Your task to perform on an android device: change the clock style Image 0: 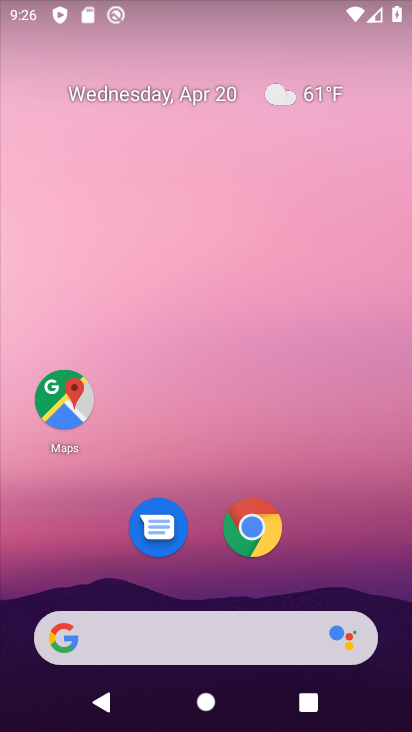
Step 0: drag from (303, 571) to (310, 101)
Your task to perform on an android device: change the clock style Image 1: 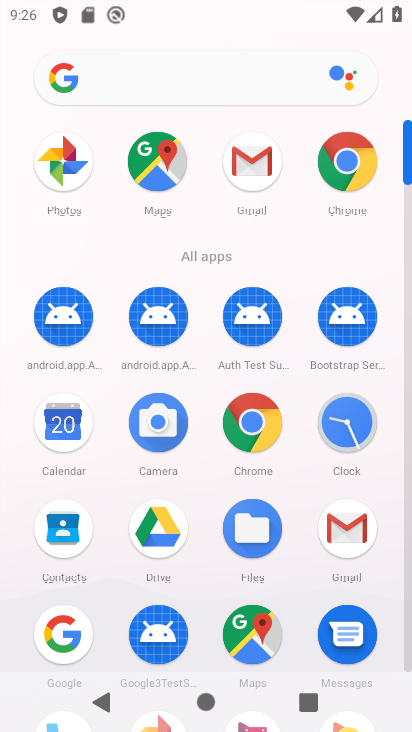
Step 1: click (344, 425)
Your task to perform on an android device: change the clock style Image 2: 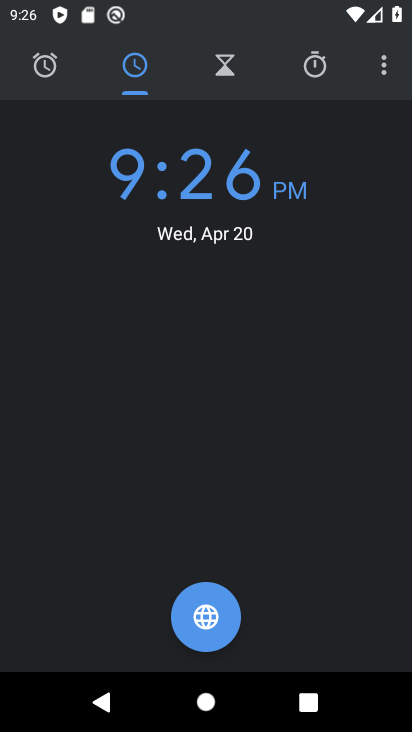
Step 2: click (380, 68)
Your task to perform on an android device: change the clock style Image 3: 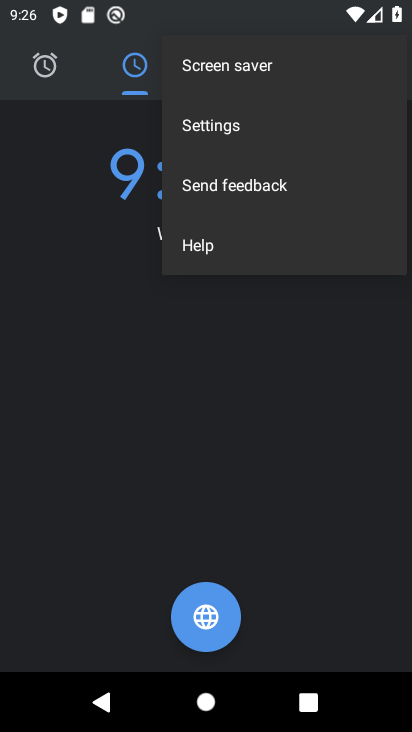
Step 3: click (219, 121)
Your task to perform on an android device: change the clock style Image 4: 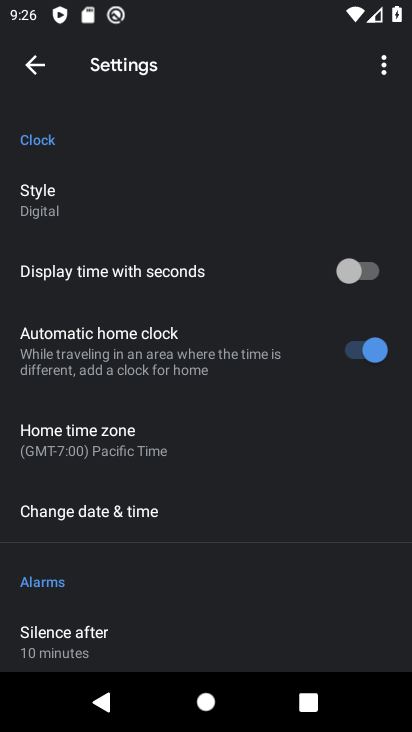
Step 4: click (40, 202)
Your task to perform on an android device: change the clock style Image 5: 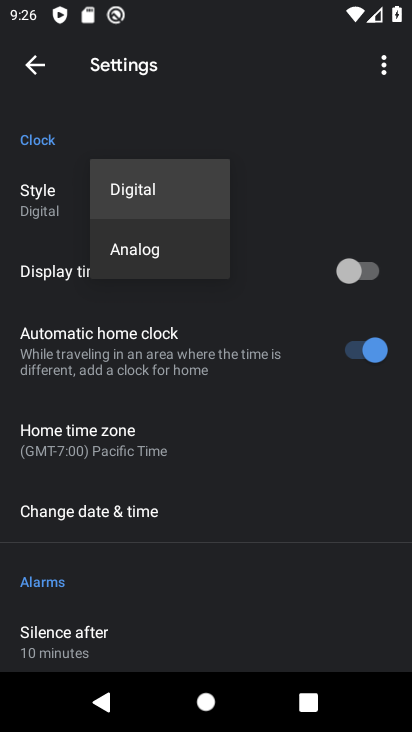
Step 5: click (130, 256)
Your task to perform on an android device: change the clock style Image 6: 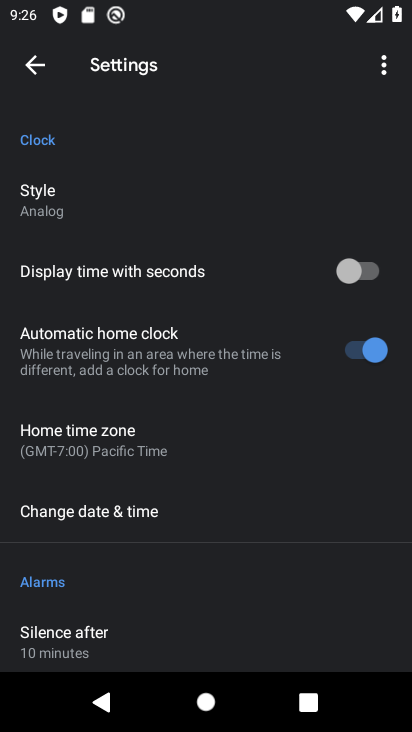
Step 6: task complete